Your task to perform on an android device: check google app version Image 0: 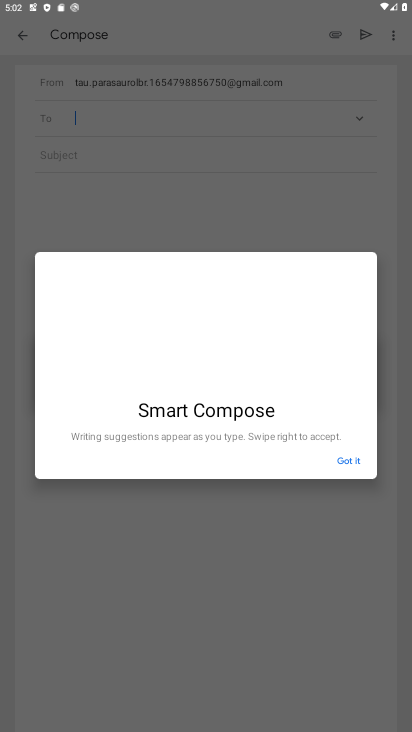
Step 0: press home button
Your task to perform on an android device: check google app version Image 1: 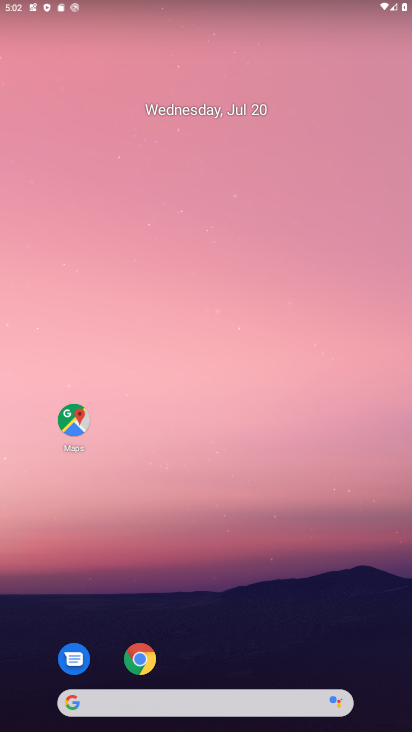
Step 1: drag from (236, 690) to (228, 385)
Your task to perform on an android device: check google app version Image 2: 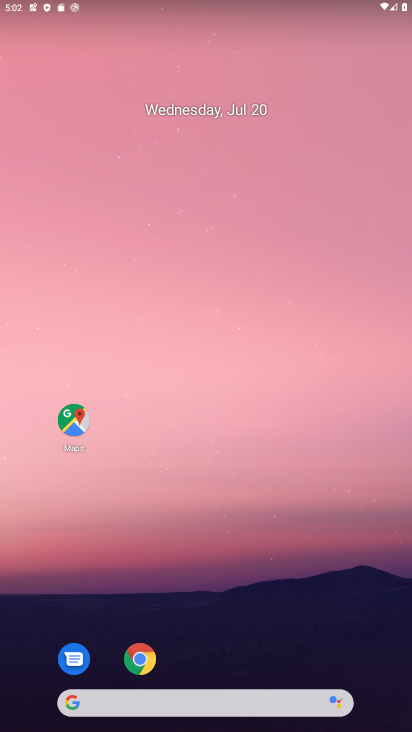
Step 2: drag from (185, 635) to (136, 145)
Your task to perform on an android device: check google app version Image 3: 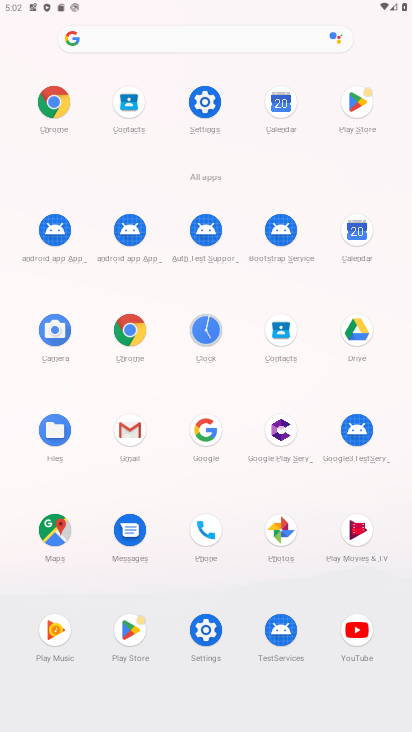
Step 3: click (206, 432)
Your task to perform on an android device: check google app version Image 4: 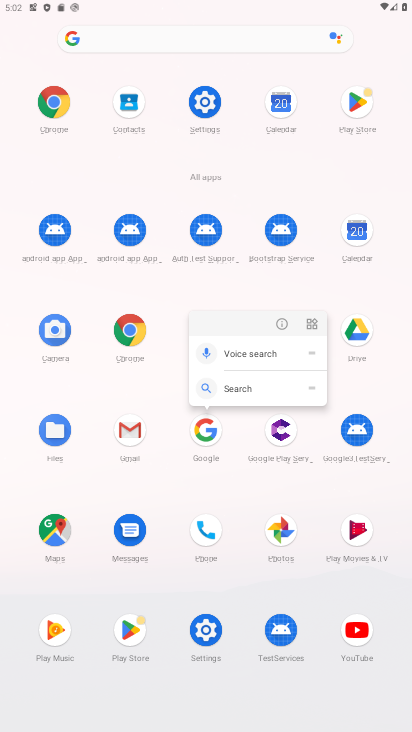
Step 4: click (281, 319)
Your task to perform on an android device: check google app version Image 5: 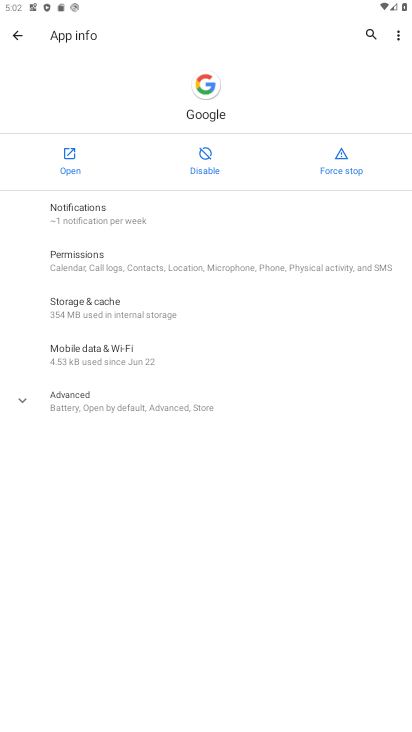
Step 5: click (99, 402)
Your task to perform on an android device: check google app version Image 6: 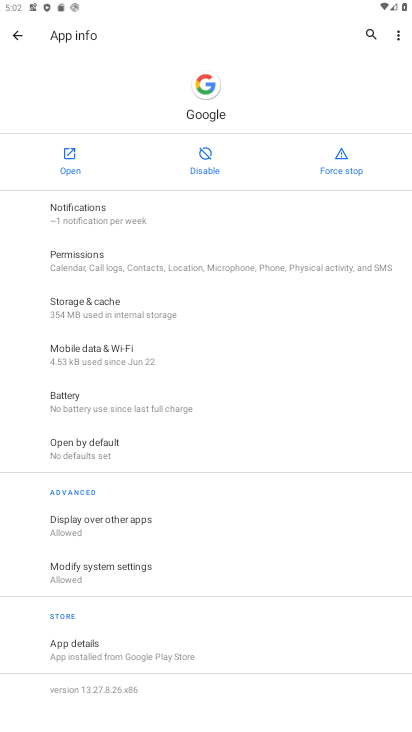
Step 6: task complete